Your task to perform on an android device: Search for seafood restaurants on Google Maps Image 0: 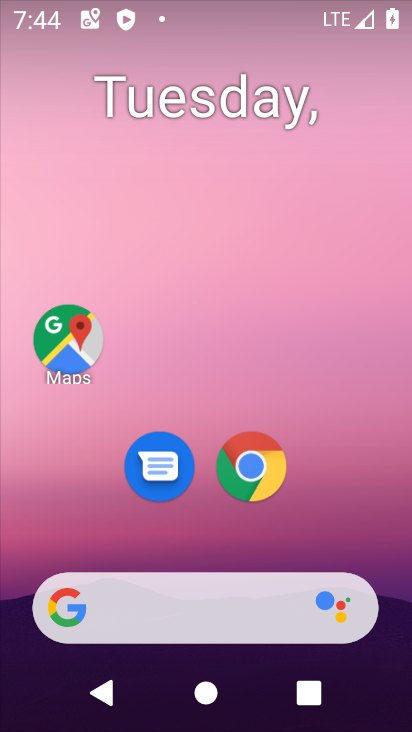
Step 0: click (58, 316)
Your task to perform on an android device: Search for seafood restaurants on Google Maps Image 1: 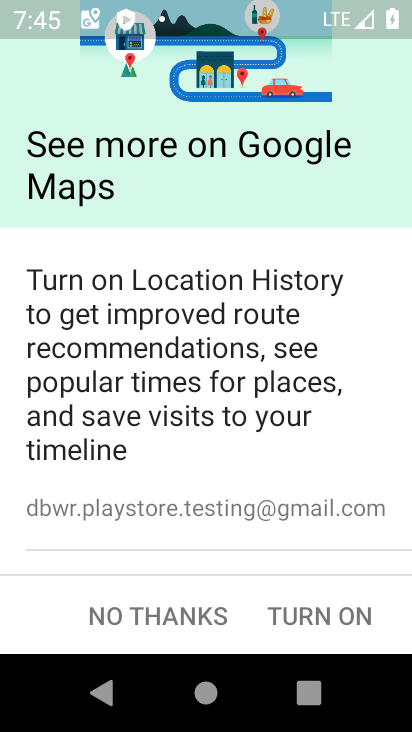
Step 1: click (313, 609)
Your task to perform on an android device: Search for seafood restaurants on Google Maps Image 2: 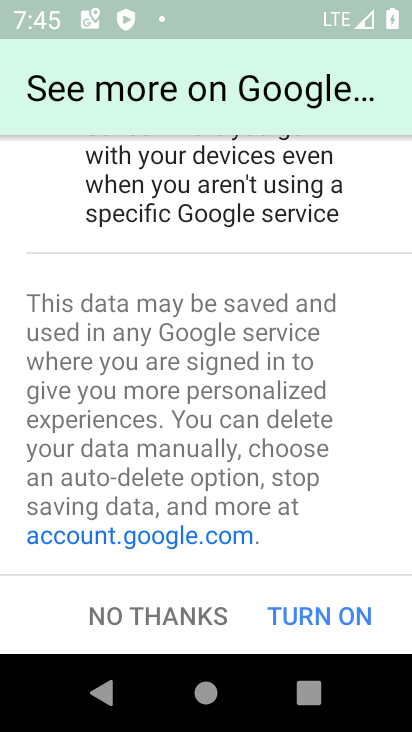
Step 2: click (306, 605)
Your task to perform on an android device: Search for seafood restaurants on Google Maps Image 3: 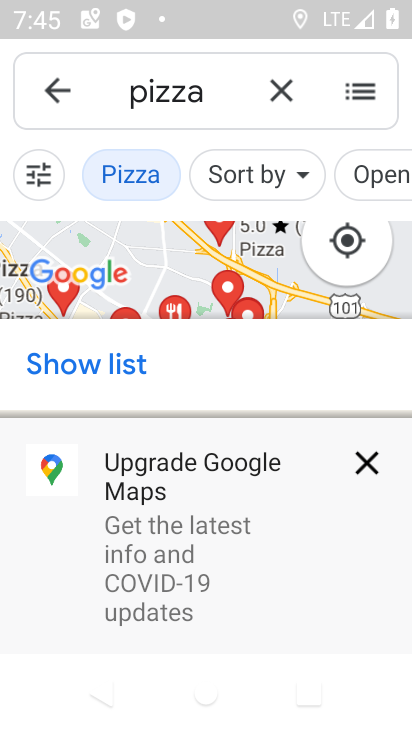
Step 3: click (317, 620)
Your task to perform on an android device: Search for seafood restaurants on Google Maps Image 4: 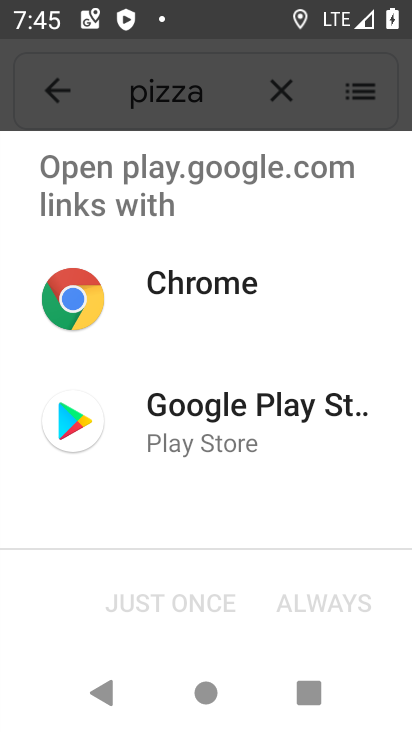
Step 4: click (219, 96)
Your task to perform on an android device: Search for seafood restaurants on Google Maps Image 5: 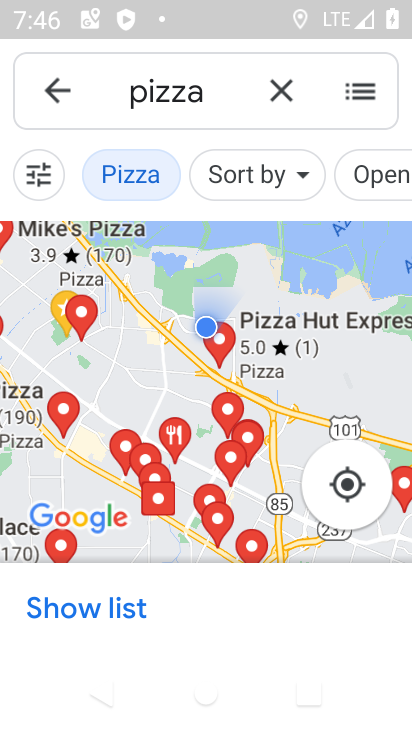
Step 5: click (272, 99)
Your task to perform on an android device: Search for seafood restaurants on Google Maps Image 6: 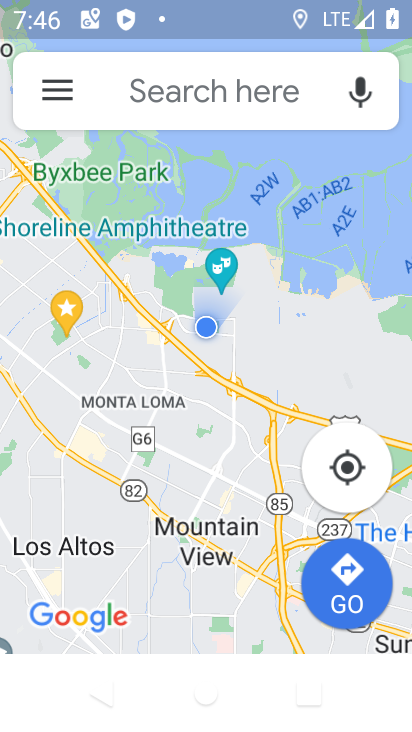
Step 6: click (272, 99)
Your task to perform on an android device: Search for seafood restaurants on Google Maps Image 7: 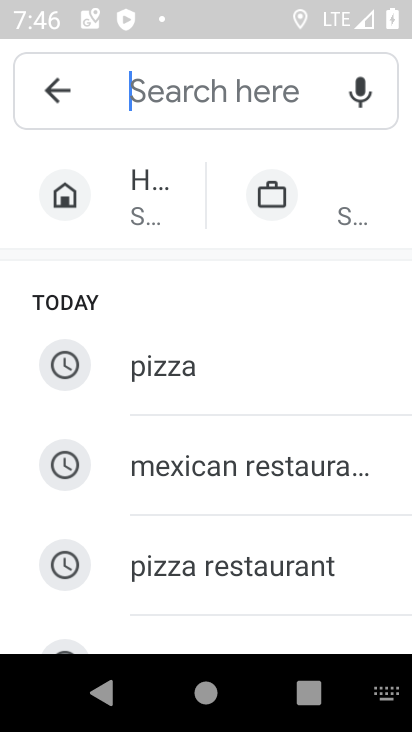
Step 7: drag from (217, 542) to (214, 345)
Your task to perform on an android device: Search for seafood restaurants on Google Maps Image 8: 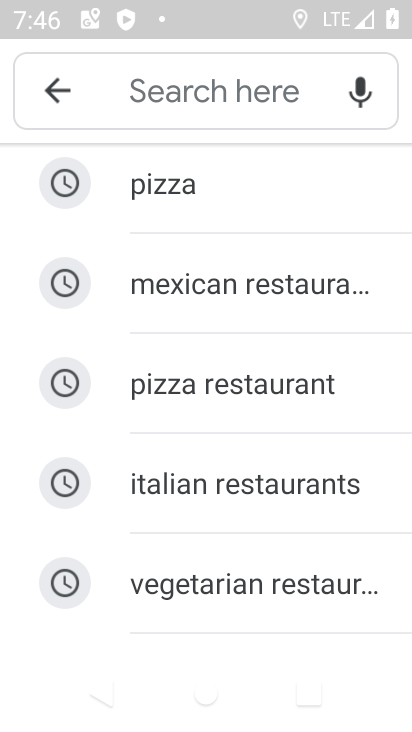
Step 8: drag from (212, 501) to (214, 365)
Your task to perform on an android device: Search for seafood restaurants on Google Maps Image 9: 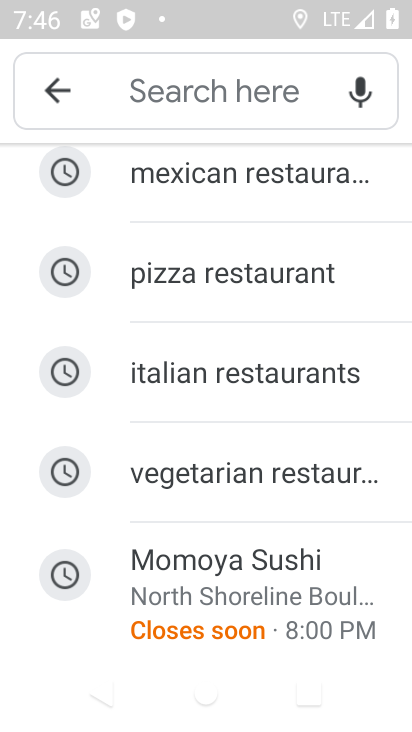
Step 9: click (190, 107)
Your task to perform on an android device: Search for seafood restaurants on Google Maps Image 10: 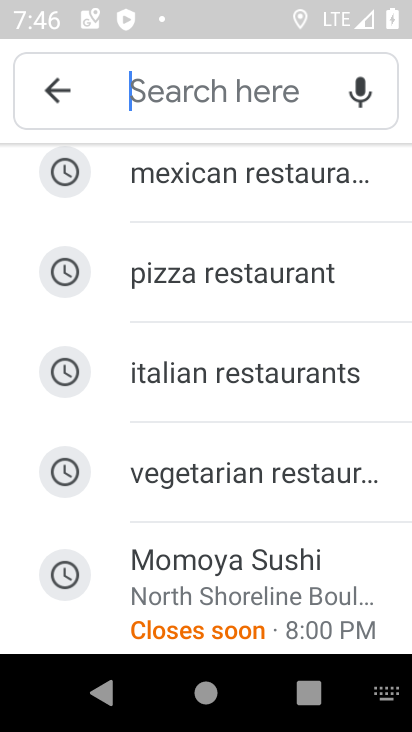
Step 10: type "seafood"
Your task to perform on an android device: Search for seafood restaurants on Google Maps Image 11: 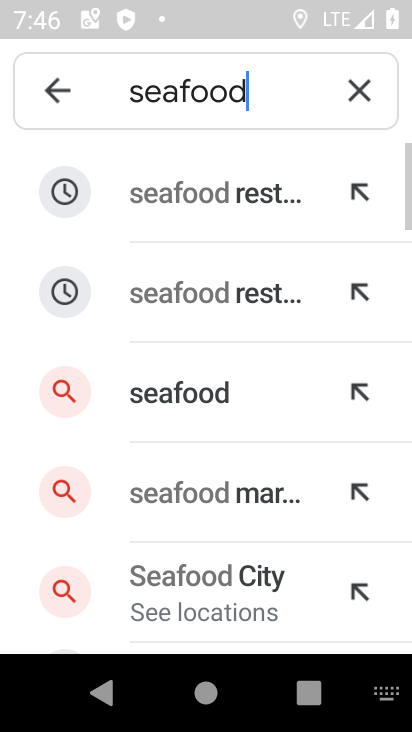
Step 11: click (217, 188)
Your task to perform on an android device: Search for seafood restaurants on Google Maps Image 12: 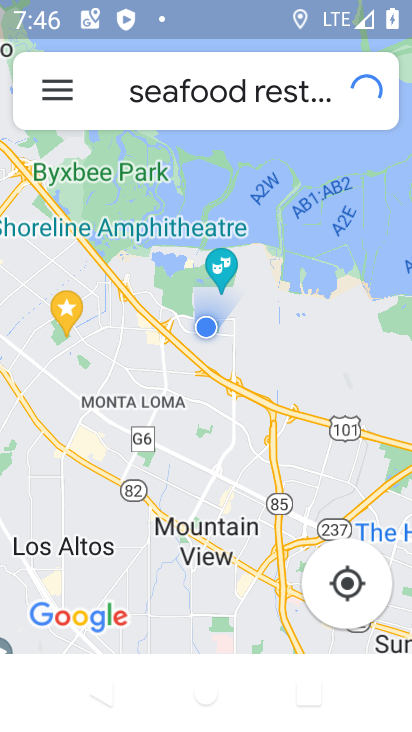
Step 12: task complete